Your task to perform on an android device: Search for Italian restaurants on Maps Image 0: 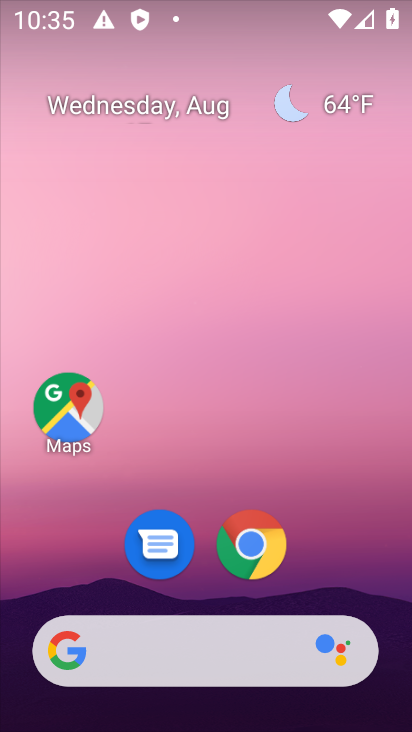
Step 0: task complete